Your task to perform on an android device: Add razer nari to the cart on walmart, then select checkout. Image 0: 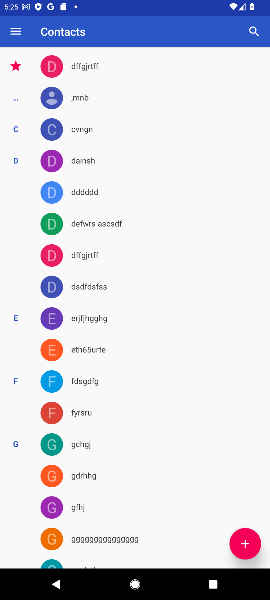
Step 0: press home button
Your task to perform on an android device: Add razer nari to the cart on walmart, then select checkout. Image 1: 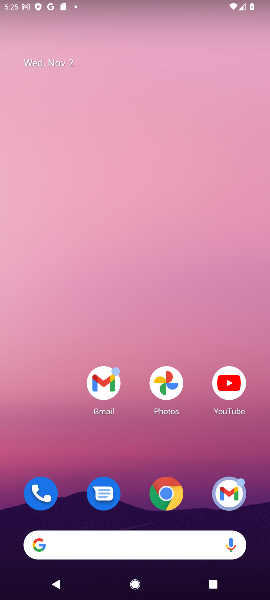
Step 1: drag from (82, 503) to (122, 148)
Your task to perform on an android device: Add razer nari to the cart on walmart, then select checkout. Image 2: 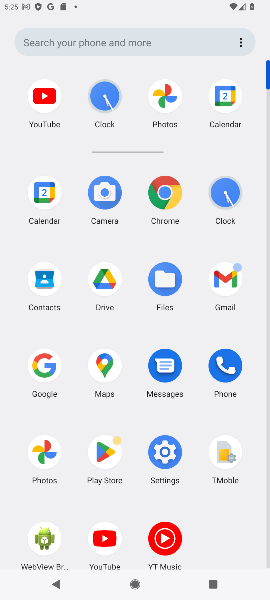
Step 2: click (44, 366)
Your task to perform on an android device: Add razer nari to the cart on walmart, then select checkout. Image 3: 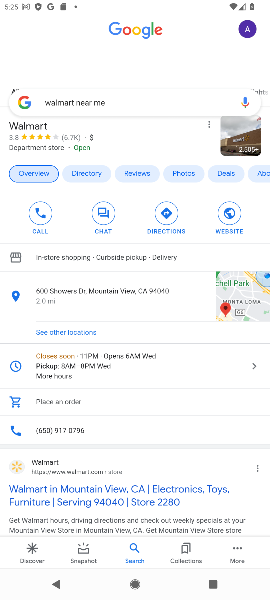
Step 3: click (133, 95)
Your task to perform on an android device: Add razer nari to the cart on walmart, then select checkout. Image 4: 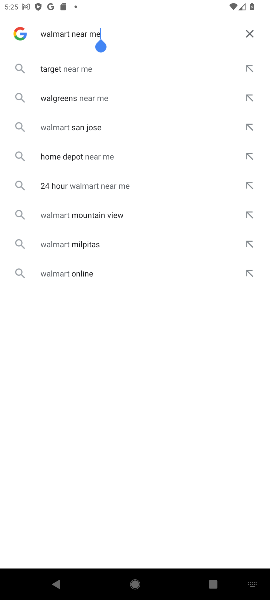
Step 4: click (246, 36)
Your task to perform on an android device: Add razer nari to the cart on walmart, then select checkout. Image 5: 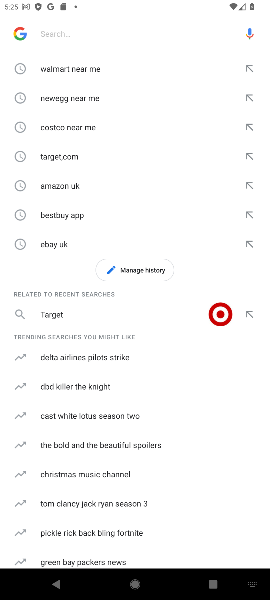
Step 5: click (73, 71)
Your task to perform on an android device: Add razer nari to the cart on walmart, then select checkout. Image 6: 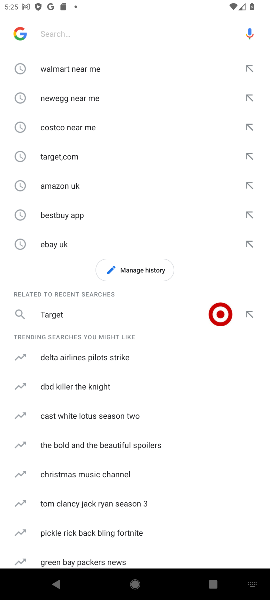
Step 6: click (73, 71)
Your task to perform on an android device: Add razer nari to the cart on walmart, then select checkout. Image 7: 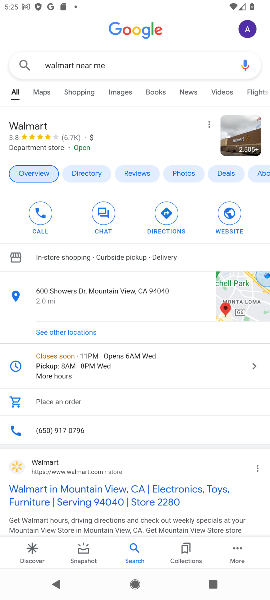
Step 7: click (14, 467)
Your task to perform on an android device: Add razer nari to the cart on walmart, then select checkout. Image 8: 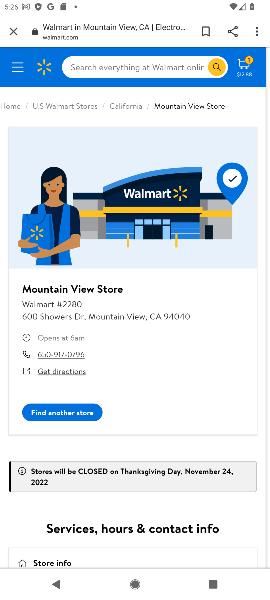
Step 8: click (134, 65)
Your task to perform on an android device: Add razer nari to the cart on walmart, then select checkout. Image 9: 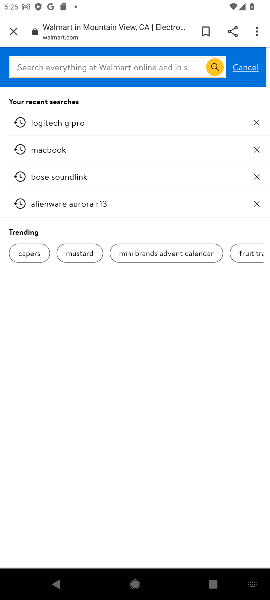
Step 9: click (91, 59)
Your task to perform on an android device: Add razer nari to the cart on walmart, then select checkout. Image 10: 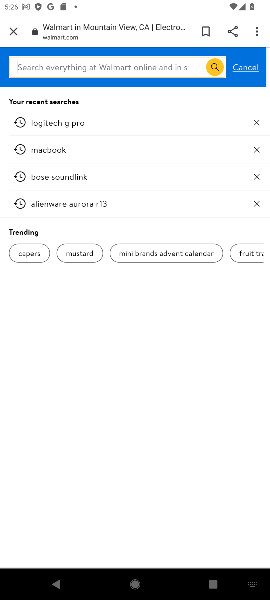
Step 10: type "razer nari  "
Your task to perform on an android device: Add razer nari to the cart on walmart, then select checkout. Image 11: 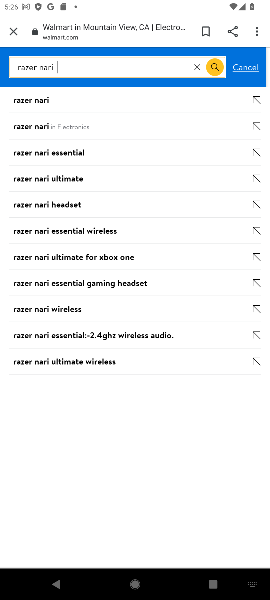
Step 11: click (30, 99)
Your task to perform on an android device: Add razer nari to the cart on walmart, then select checkout. Image 12: 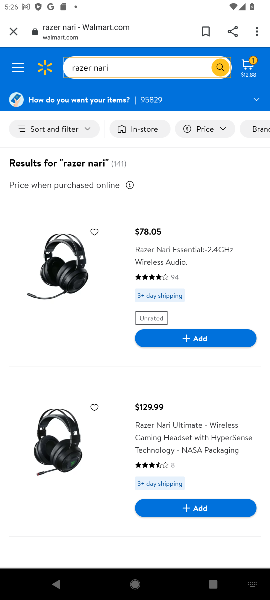
Step 12: click (177, 334)
Your task to perform on an android device: Add razer nari to the cart on walmart, then select checkout. Image 13: 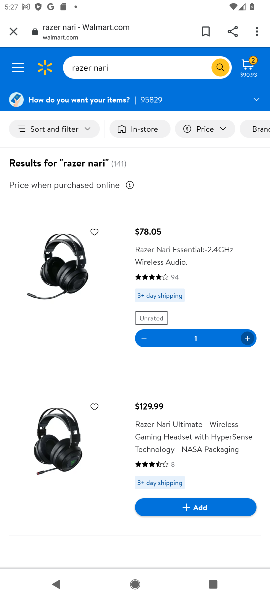
Step 13: task complete